Your task to perform on an android device: Search for seafood restaurants on Google Maps Image 0: 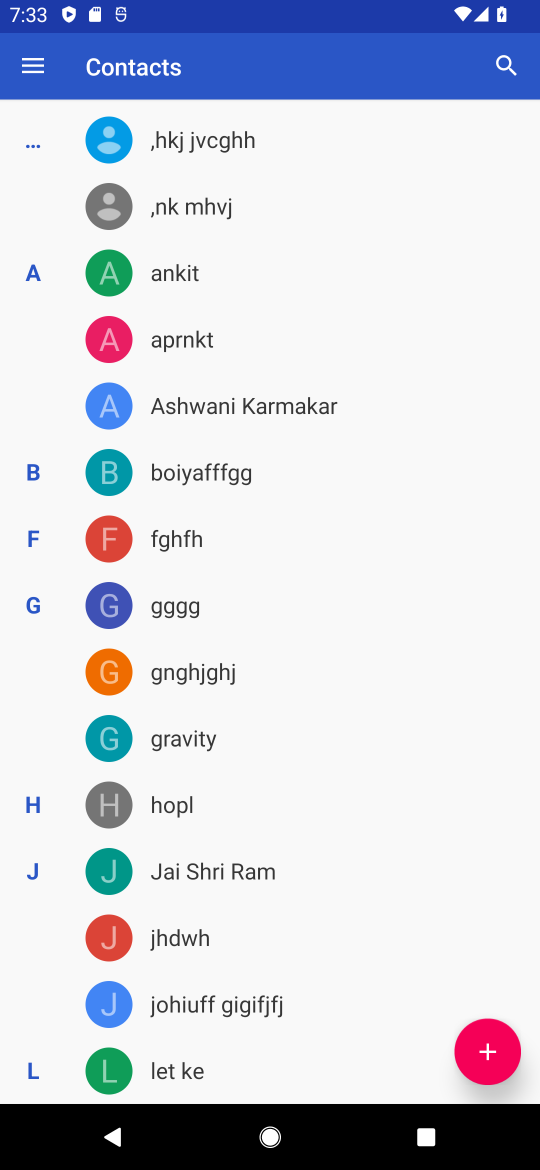
Step 0: press home button
Your task to perform on an android device: Search for seafood restaurants on Google Maps Image 1: 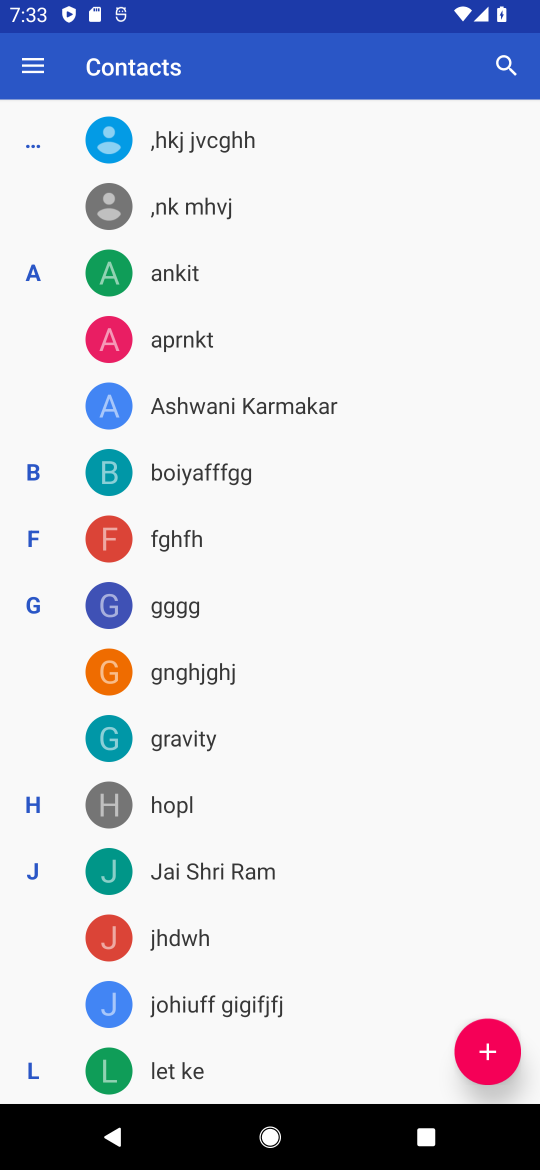
Step 1: press home button
Your task to perform on an android device: Search for seafood restaurants on Google Maps Image 2: 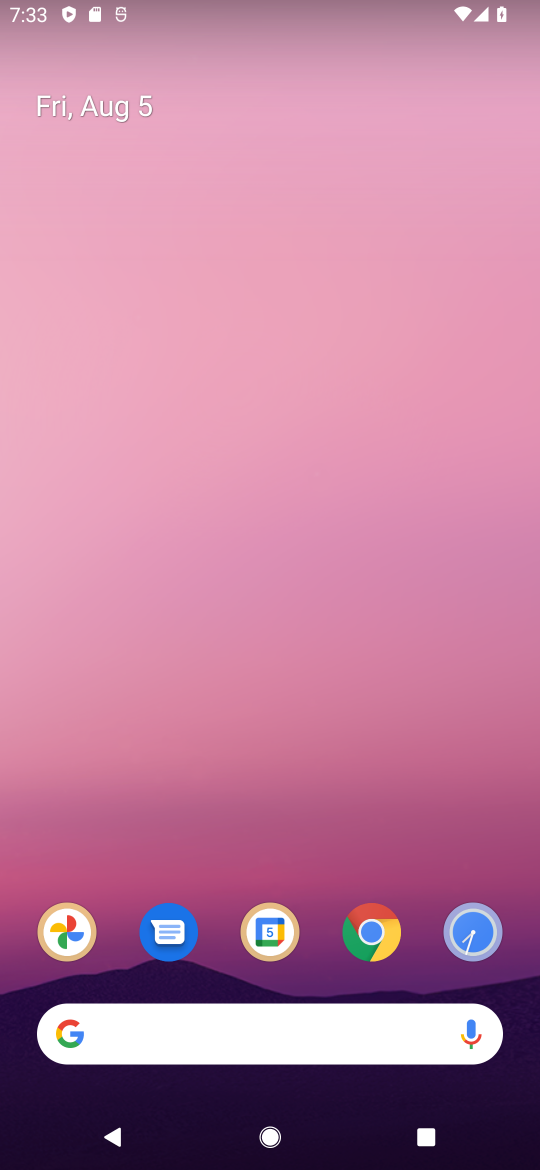
Step 2: drag from (383, 684) to (539, 9)
Your task to perform on an android device: Search for seafood restaurants on Google Maps Image 3: 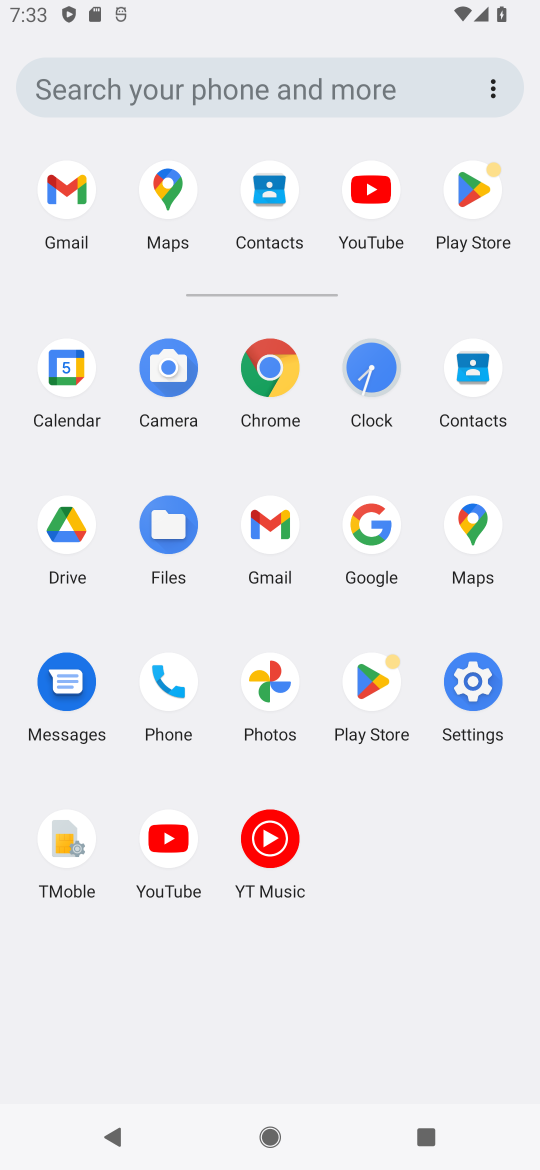
Step 3: click (475, 514)
Your task to perform on an android device: Search for seafood restaurants on Google Maps Image 4: 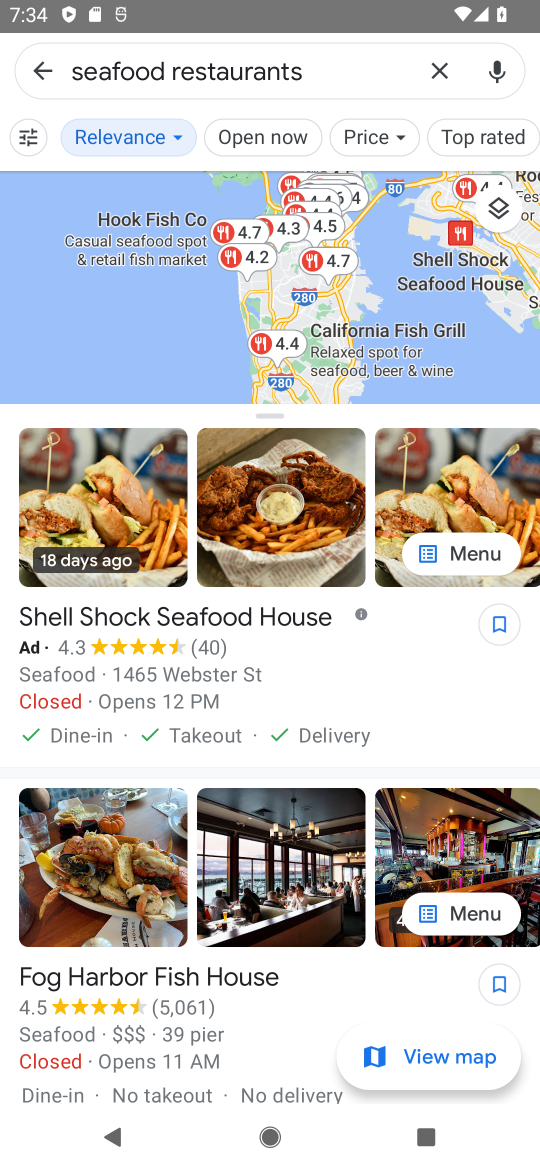
Step 4: task complete